Your task to perform on an android device: turn on javascript in the chrome app Image 0: 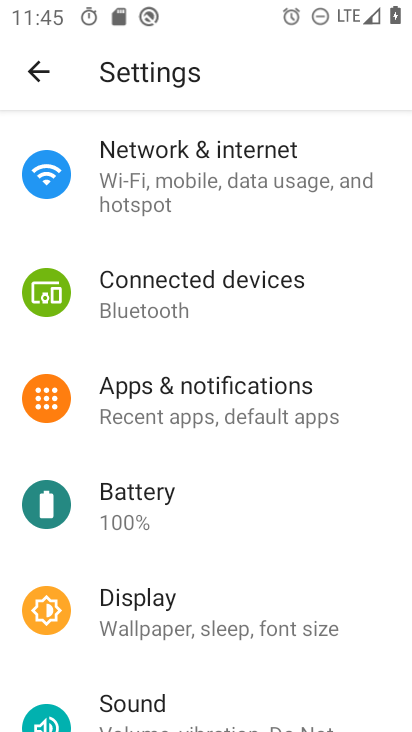
Step 0: press home button
Your task to perform on an android device: turn on javascript in the chrome app Image 1: 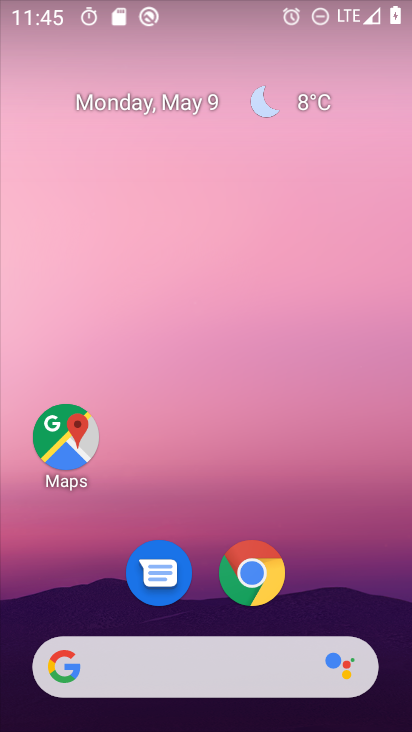
Step 1: drag from (335, 546) to (311, 93)
Your task to perform on an android device: turn on javascript in the chrome app Image 2: 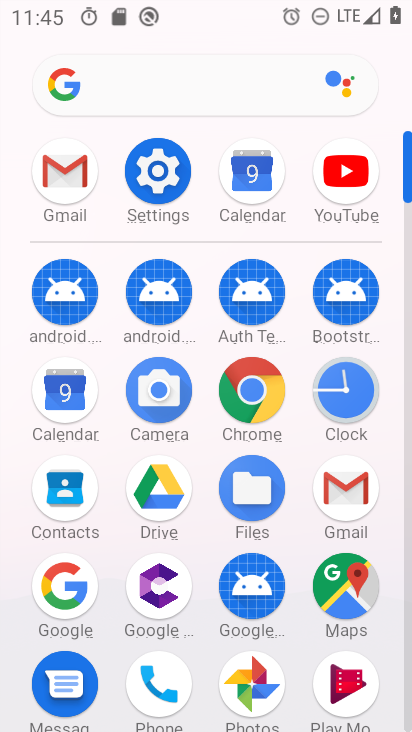
Step 2: click (259, 389)
Your task to perform on an android device: turn on javascript in the chrome app Image 3: 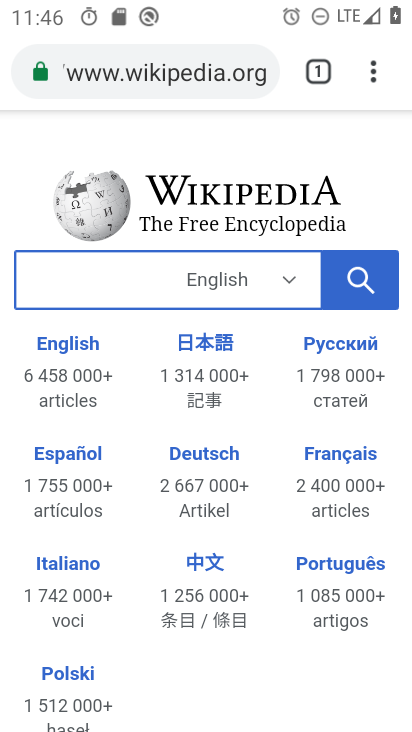
Step 3: drag from (370, 79) to (174, 569)
Your task to perform on an android device: turn on javascript in the chrome app Image 4: 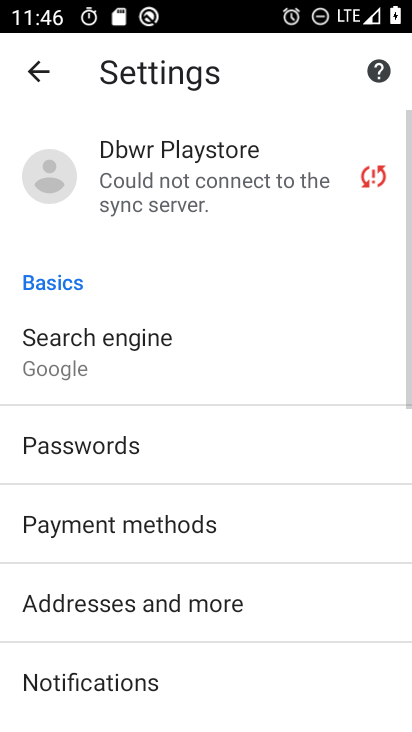
Step 4: drag from (265, 654) to (289, 206)
Your task to perform on an android device: turn on javascript in the chrome app Image 5: 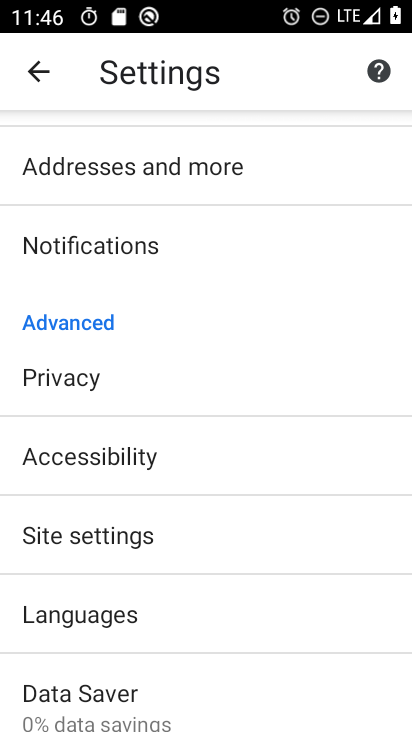
Step 5: click (106, 536)
Your task to perform on an android device: turn on javascript in the chrome app Image 6: 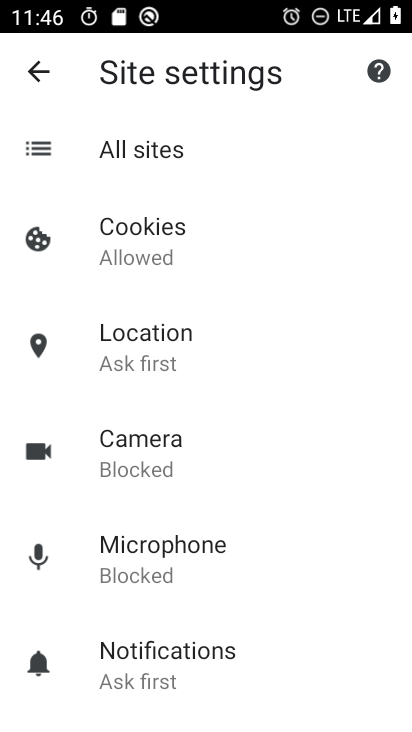
Step 6: drag from (292, 607) to (311, 241)
Your task to perform on an android device: turn on javascript in the chrome app Image 7: 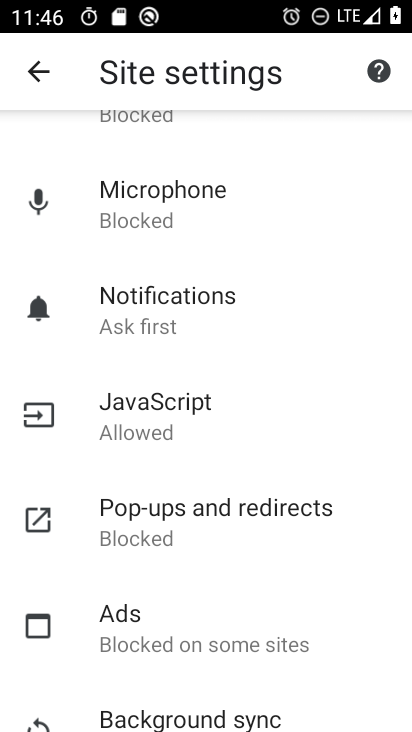
Step 7: click (124, 408)
Your task to perform on an android device: turn on javascript in the chrome app Image 8: 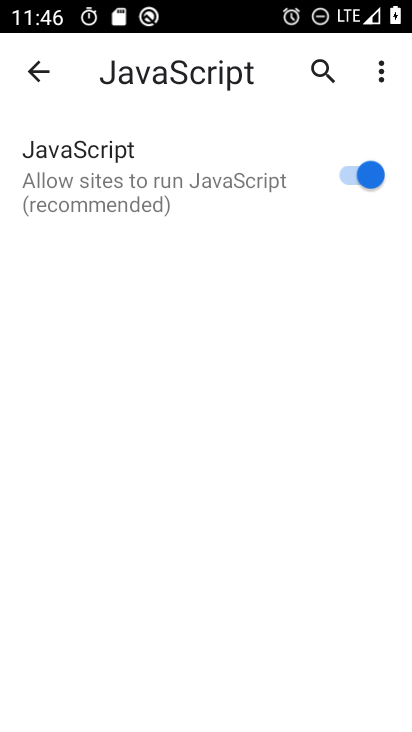
Step 8: task complete